Your task to perform on an android device: create a new album in the google photos Image 0: 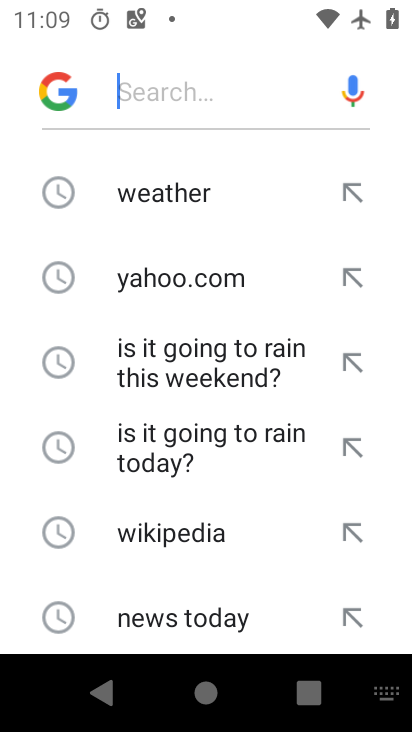
Step 0: press home button
Your task to perform on an android device: create a new album in the google photos Image 1: 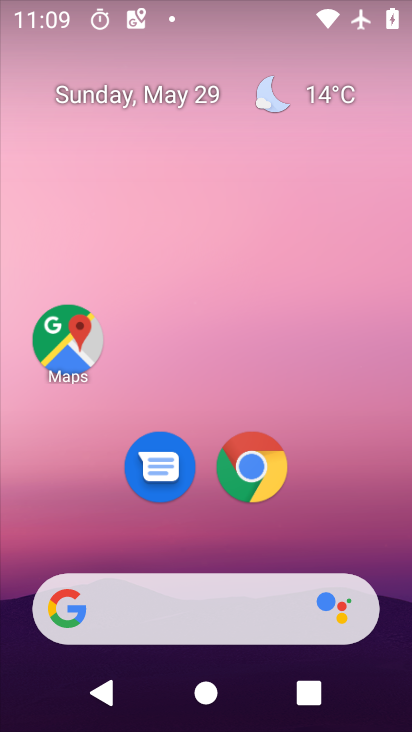
Step 1: drag from (209, 534) to (170, 212)
Your task to perform on an android device: create a new album in the google photos Image 2: 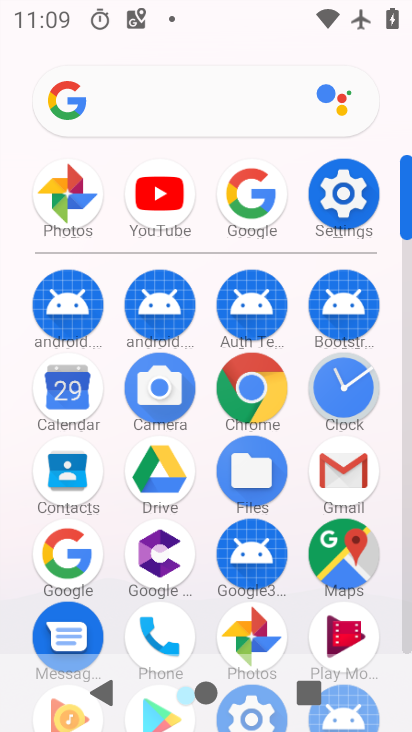
Step 2: click (69, 193)
Your task to perform on an android device: create a new album in the google photos Image 3: 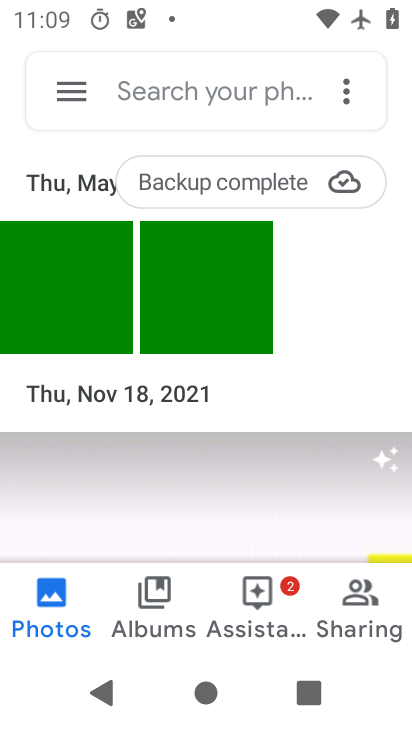
Step 3: click (342, 78)
Your task to perform on an android device: create a new album in the google photos Image 4: 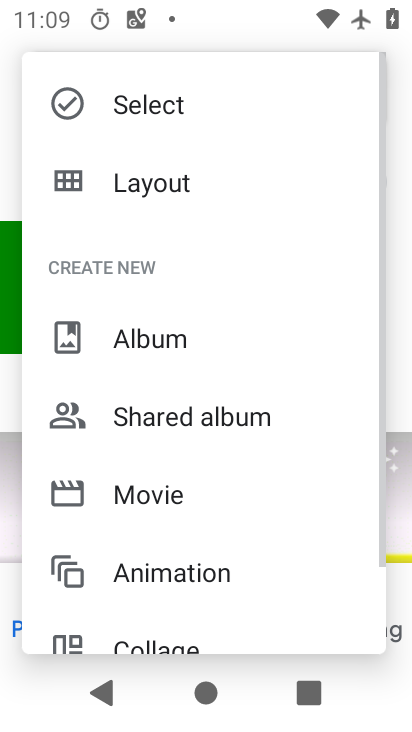
Step 4: click (185, 328)
Your task to perform on an android device: create a new album in the google photos Image 5: 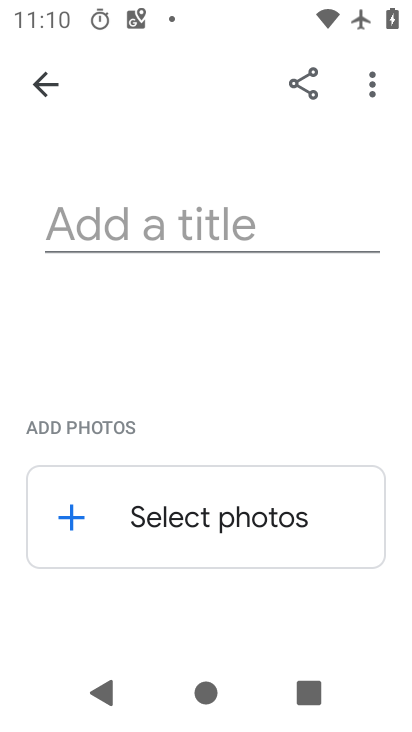
Step 5: click (187, 226)
Your task to perform on an android device: create a new album in the google photos Image 6: 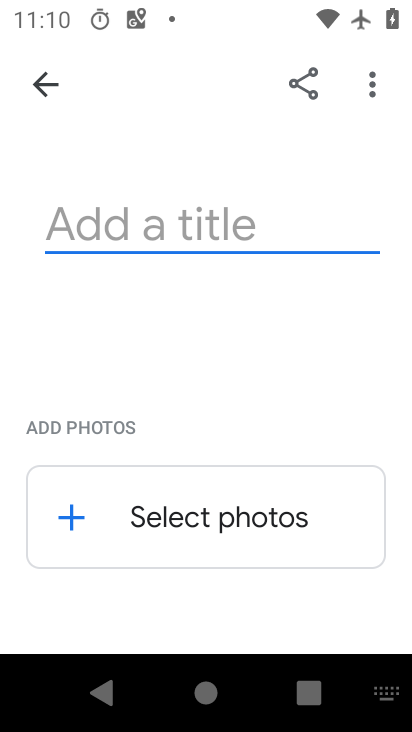
Step 6: type "sdgs"
Your task to perform on an android device: create a new album in the google photos Image 7: 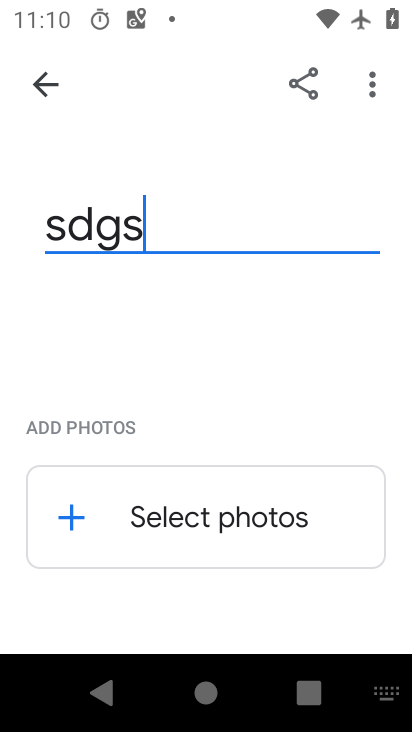
Step 7: click (72, 517)
Your task to perform on an android device: create a new album in the google photos Image 8: 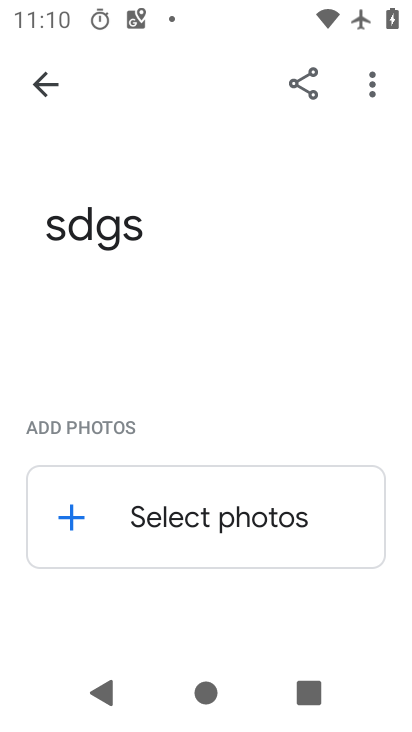
Step 8: click (70, 516)
Your task to perform on an android device: create a new album in the google photos Image 9: 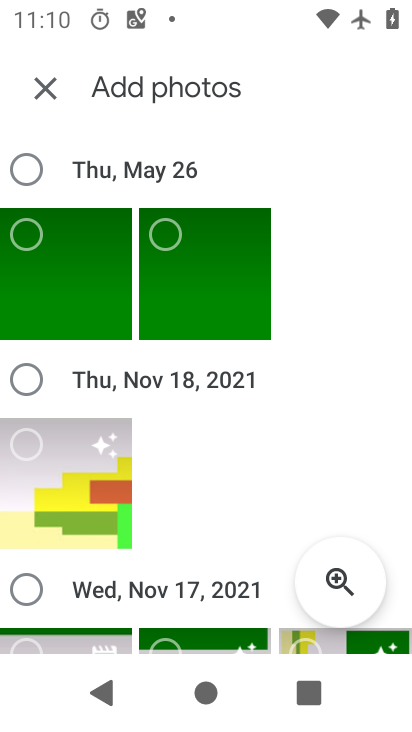
Step 9: click (31, 460)
Your task to perform on an android device: create a new album in the google photos Image 10: 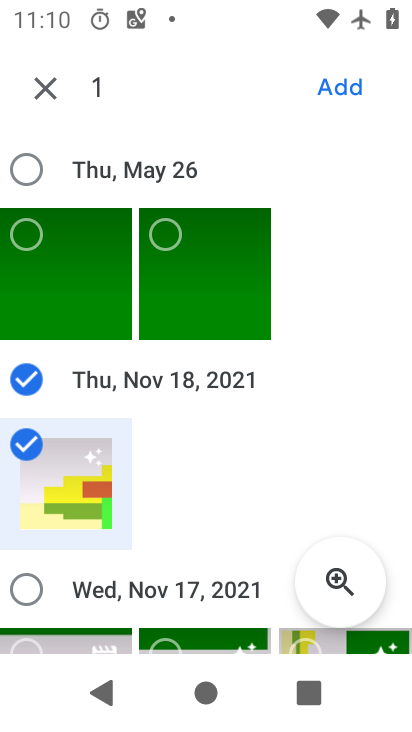
Step 10: click (317, 76)
Your task to perform on an android device: create a new album in the google photos Image 11: 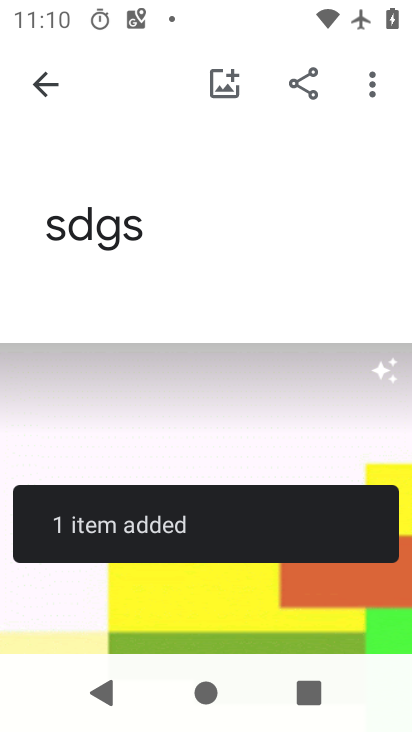
Step 11: task complete